Your task to perform on an android device: Open display settings Image 0: 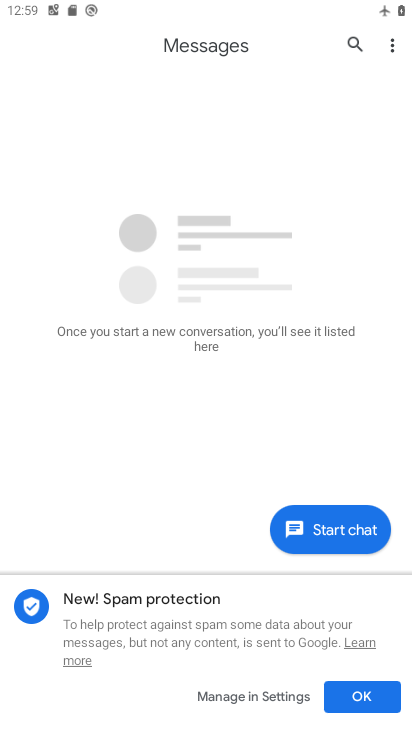
Step 0: press home button
Your task to perform on an android device: Open display settings Image 1: 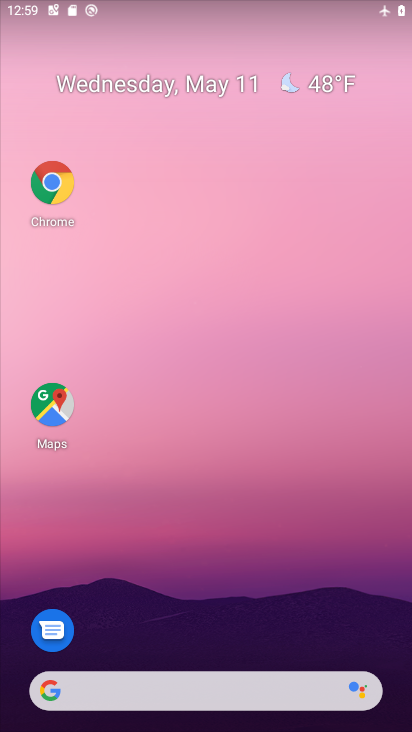
Step 1: drag from (119, 3) to (27, 11)
Your task to perform on an android device: Open display settings Image 2: 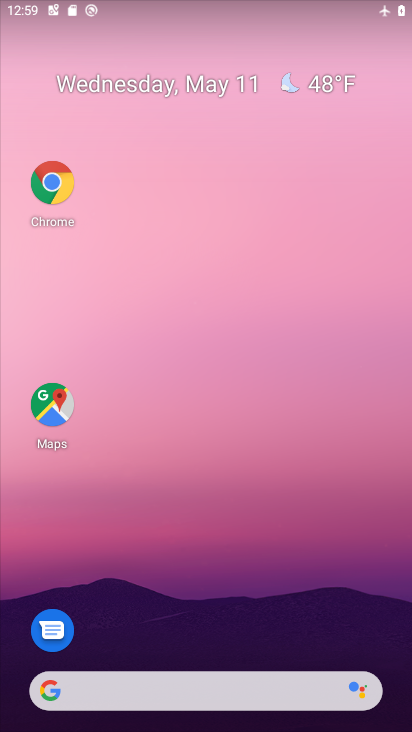
Step 2: drag from (210, 651) to (137, 40)
Your task to perform on an android device: Open display settings Image 3: 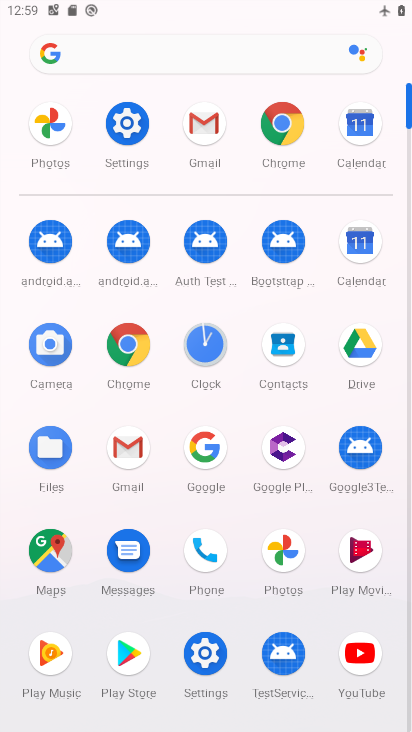
Step 3: click (188, 658)
Your task to perform on an android device: Open display settings Image 4: 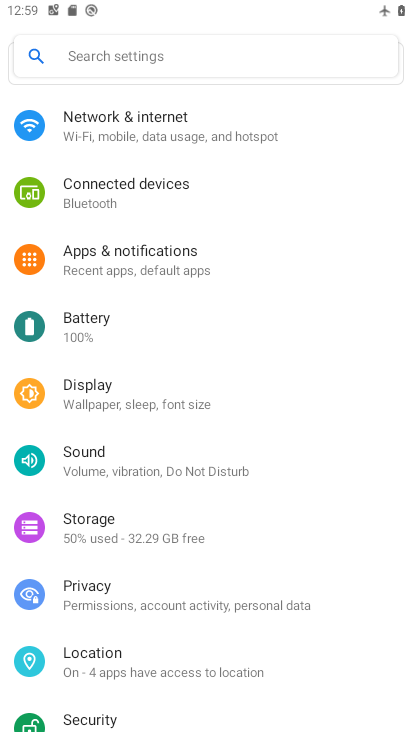
Step 4: click (105, 400)
Your task to perform on an android device: Open display settings Image 5: 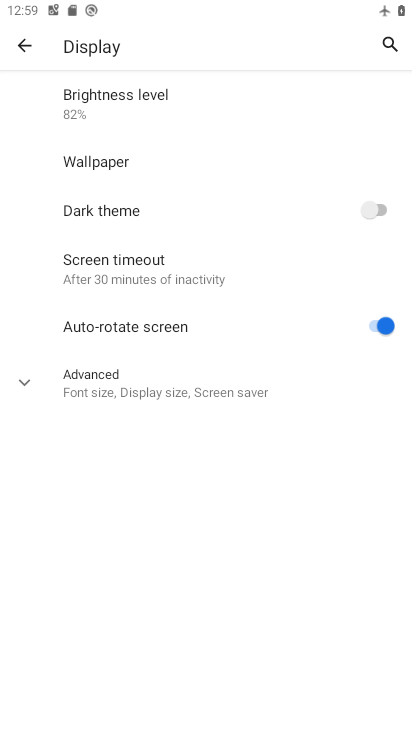
Step 5: drag from (188, 486) to (155, 307)
Your task to perform on an android device: Open display settings Image 6: 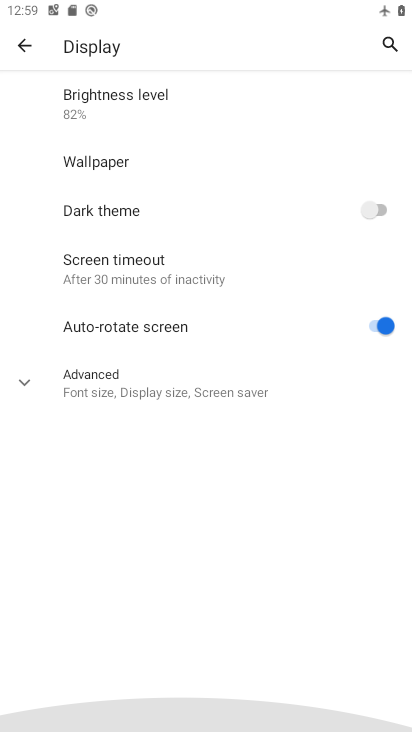
Step 6: click (138, 364)
Your task to perform on an android device: Open display settings Image 7: 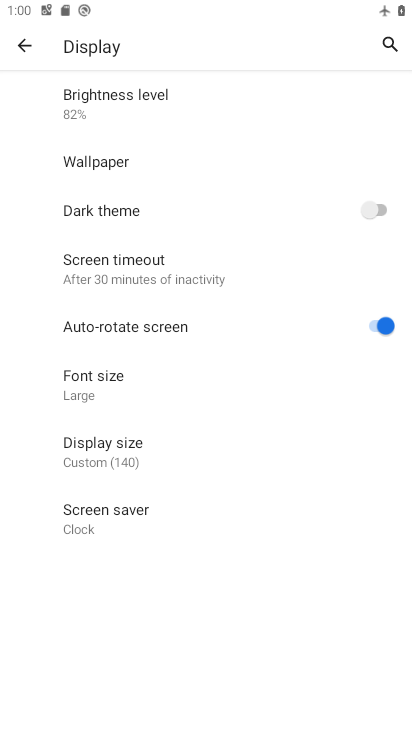
Step 7: task complete